Your task to perform on an android device: check data usage Image 0: 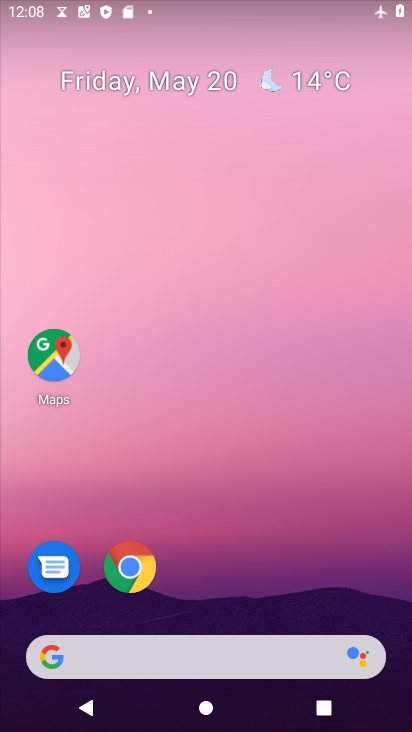
Step 0: drag from (275, 568) to (316, 78)
Your task to perform on an android device: check data usage Image 1: 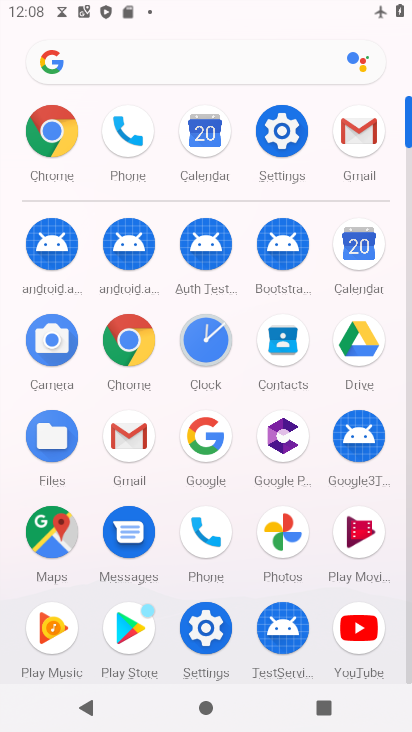
Step 1: click (272, 115)
Your task to perform on an android device: check data usage Image 2: 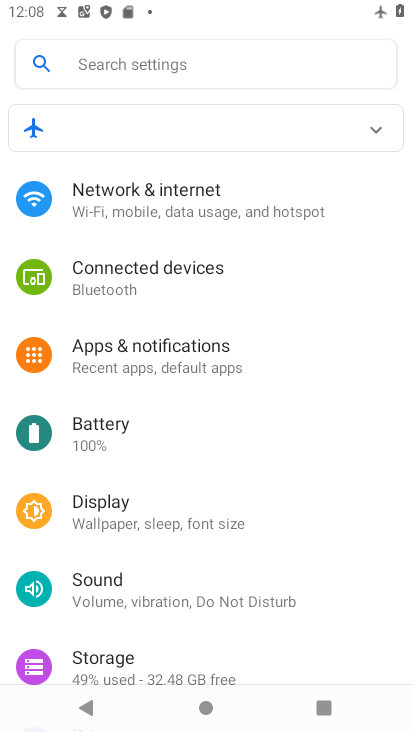
Step 2: click (162, 214)
Your task to perform on an android device: check data usage Image 3: 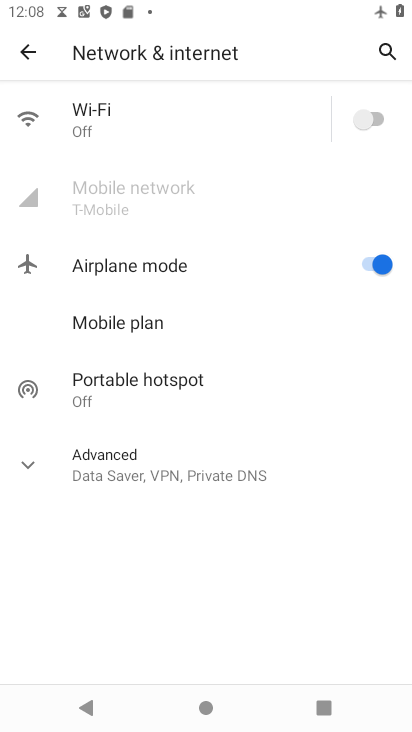
Step 3: click (141, 208)
Your task to perform on an android device: check data usage Image 4: 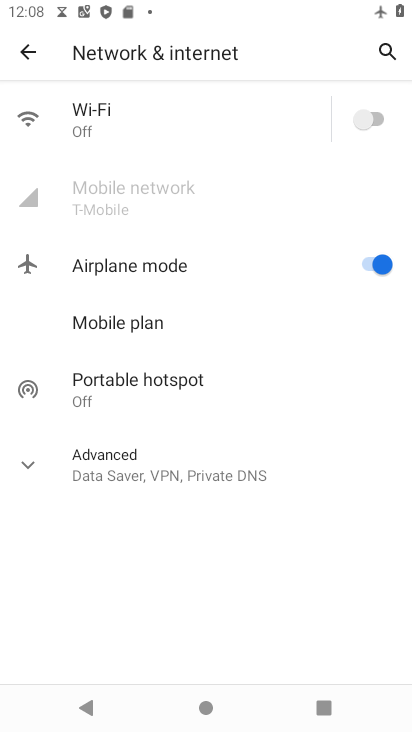
Step 4: task complete